Your task to perform on an android device: Go to privacy settings Image 0: 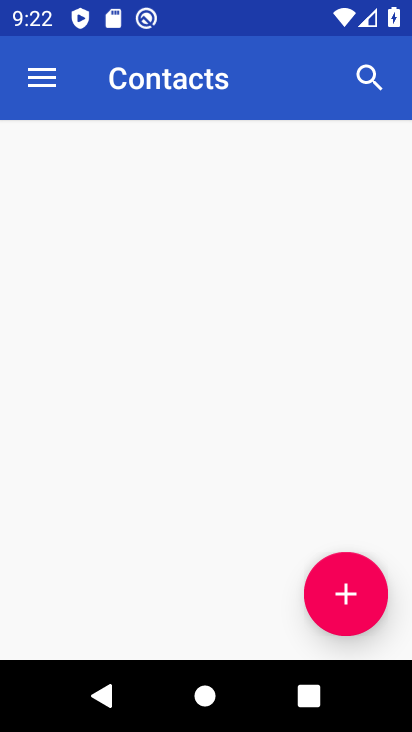
Step 0: press home button
Your task to perform on an android device: Go to privacy settings Image 1: 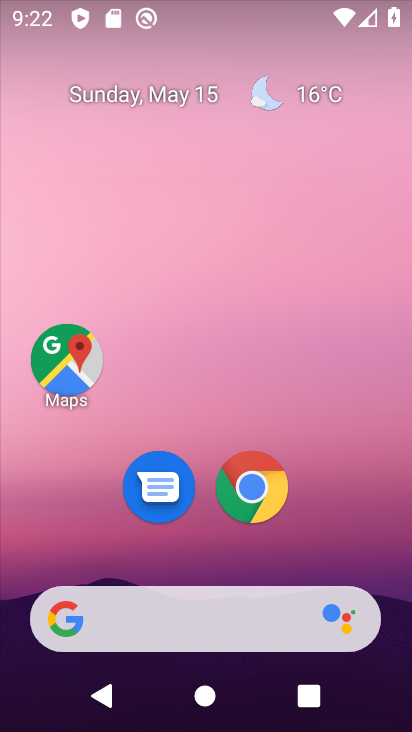
Step 1: drag from (396, 622) to (320, 214)
Your task to perform on an android device: Go to privacy settings Image 2: 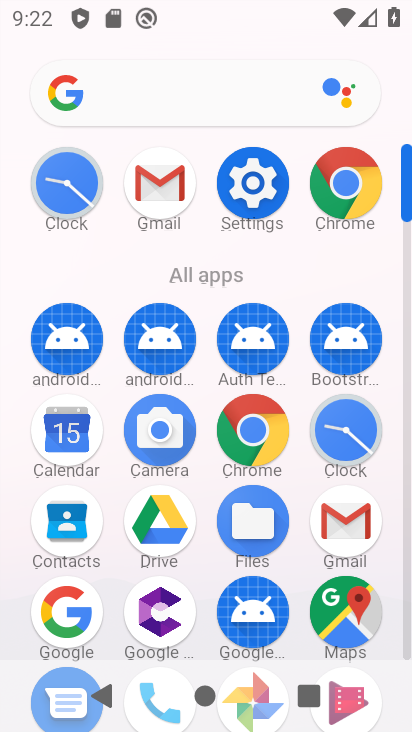
Step 2: click (407, 648)
Your task to perform on an android device: Go to privacy settings Image 3: 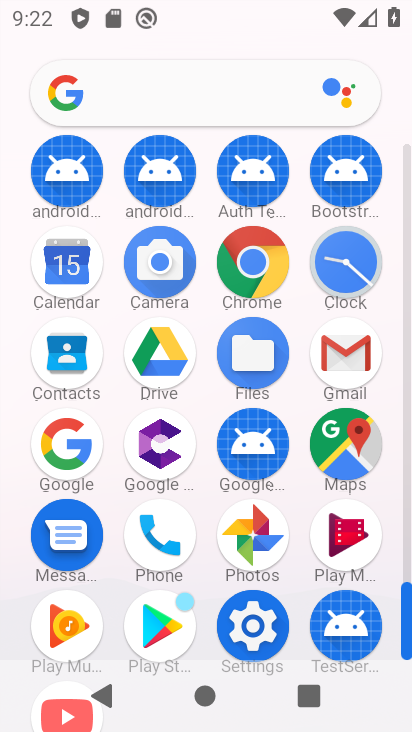
Step 3: click (254, 626)
Your task to perform on an android device: Go to privacy settings Image 4: 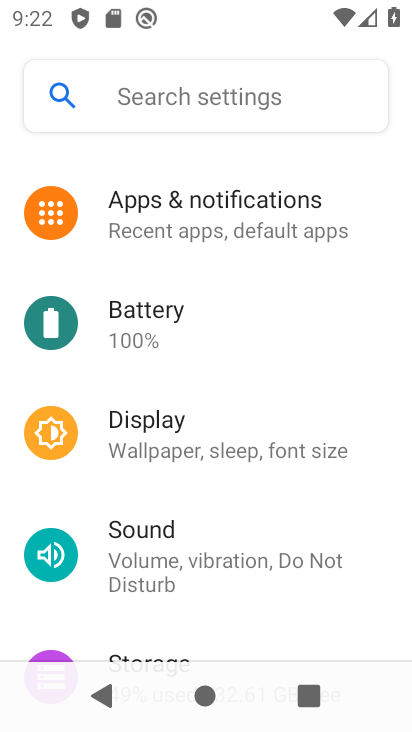
Step 4: drag from (314, 578) to (286, 189)
Your task to perform on an android device: Go to privacy settings Image 5: 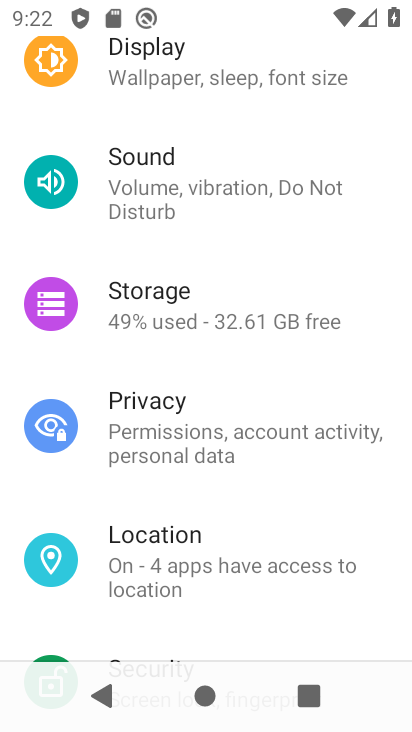
Step 5: click (162, 425)
Your task to perform on an android device: Go to privacy settings Image 6: 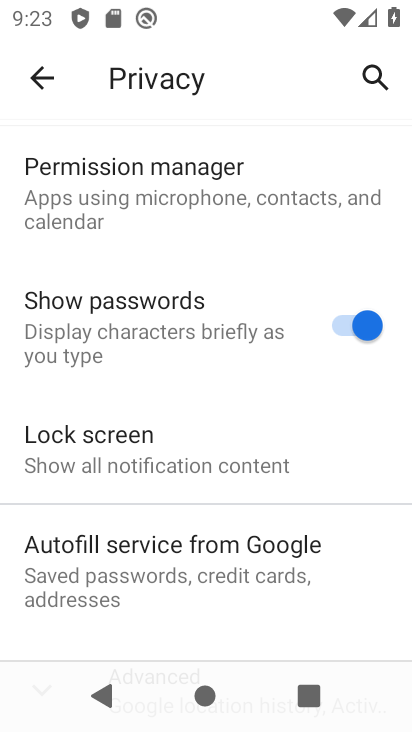
Step 6: task complete